Your task to perform on an android device: Go to internet settings Image 0: 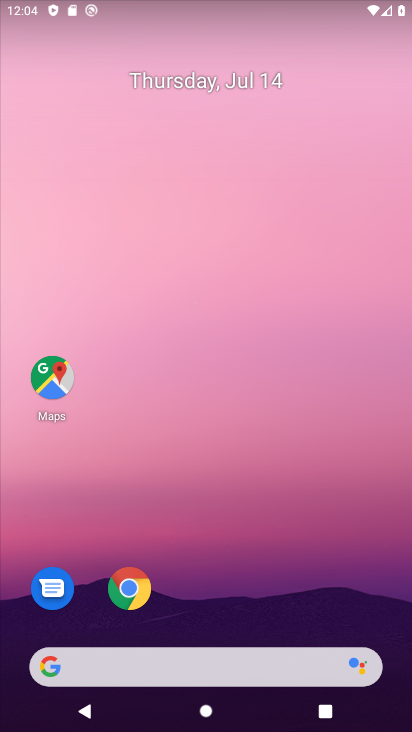
Step 0: drag from (272, 620) to (287, 211)
Your task to perform on an android device: Go to internet settings Image 1: 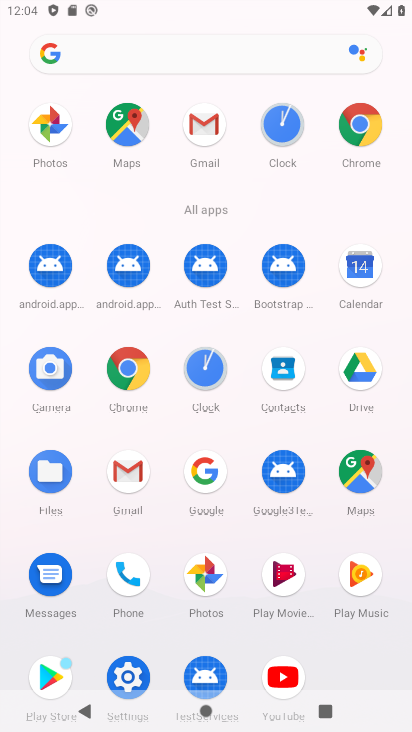
Step 1: click (132, 674)
Your task to perform on an android device: Go to internet settings Image 2: 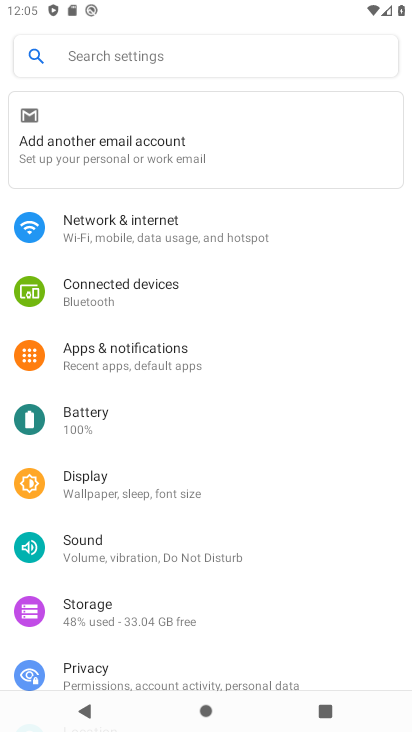
Step 2: click (141, 251)
Your task to perform on an android device: Go to internet settings Image 3: 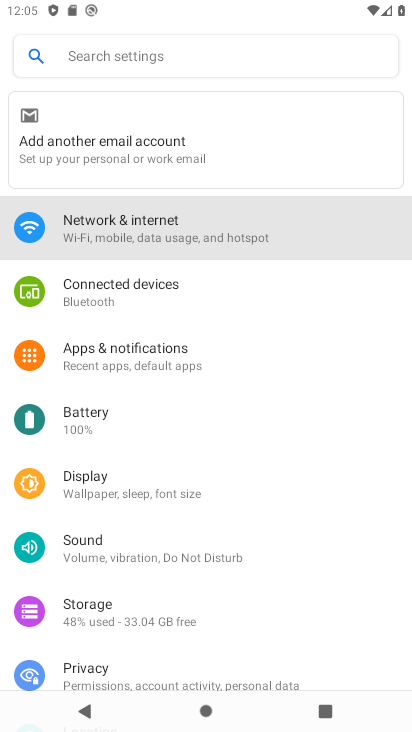
Step 3: task complete